Your task to perform on an android device: open app "DuckDuckGo Privacy Browser" (install if not already installed) and enter user name: "cleaving@outlook.com" and password: "freighters" Image 0: 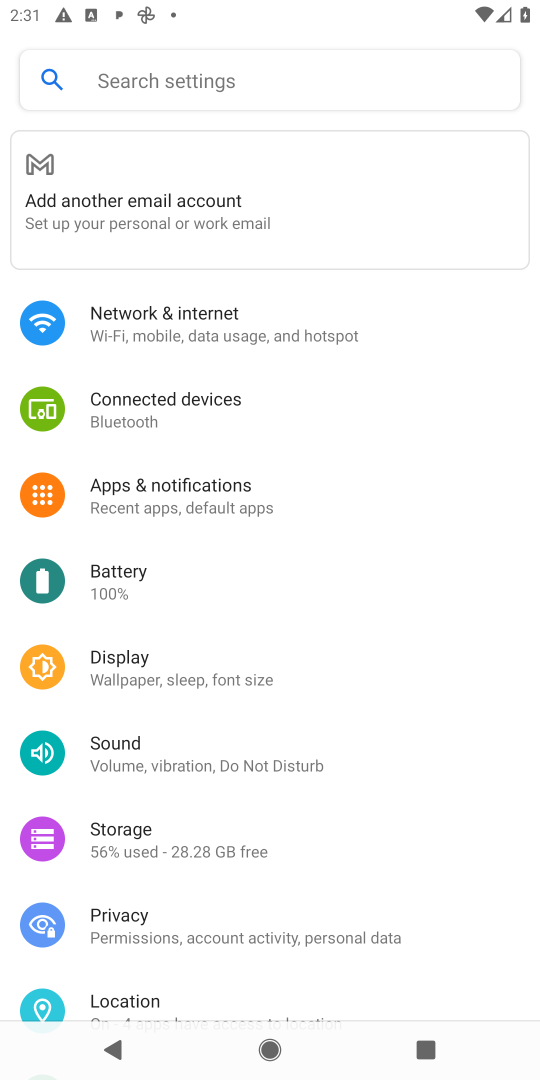
Step 0: press home button
Your task to perform on an android device: open app "DuckDuckGo Privacy Browser" (install if not already installed) and enter user name: "cleaving@outlook.com" and password: "freighters" Image 1: 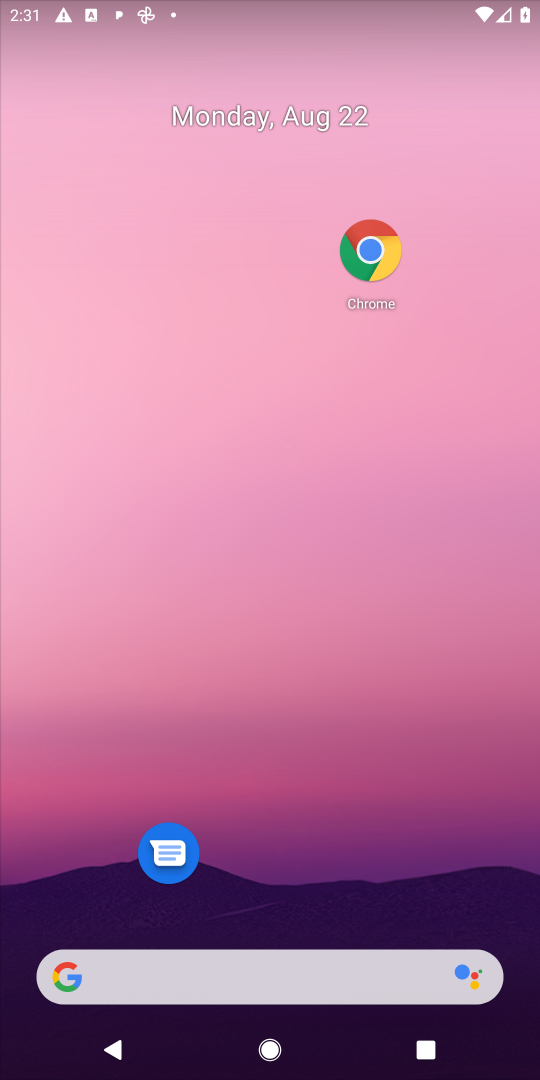
Step 1: drag from (208, 884) to (274, 129)
Your task to perform on an android device: open app "DuckDuckGo Privacy Browser" (install if not already installed) and enter user name: "cleaving@outlook.com" and password: "freighters" Image 2: 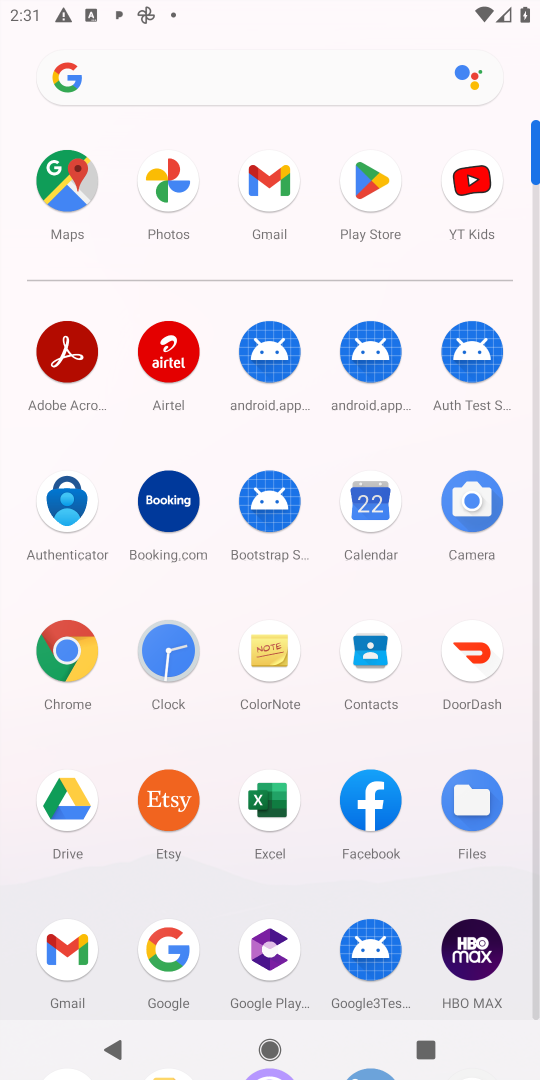
Step 2: click (372, 174)
Your task to perform on an android device: open app "DuckDuckGo Privacy Browser" (install if not already installed) and enter user name: "cleaving@outlook.com" and password: "freighters" Image 3: 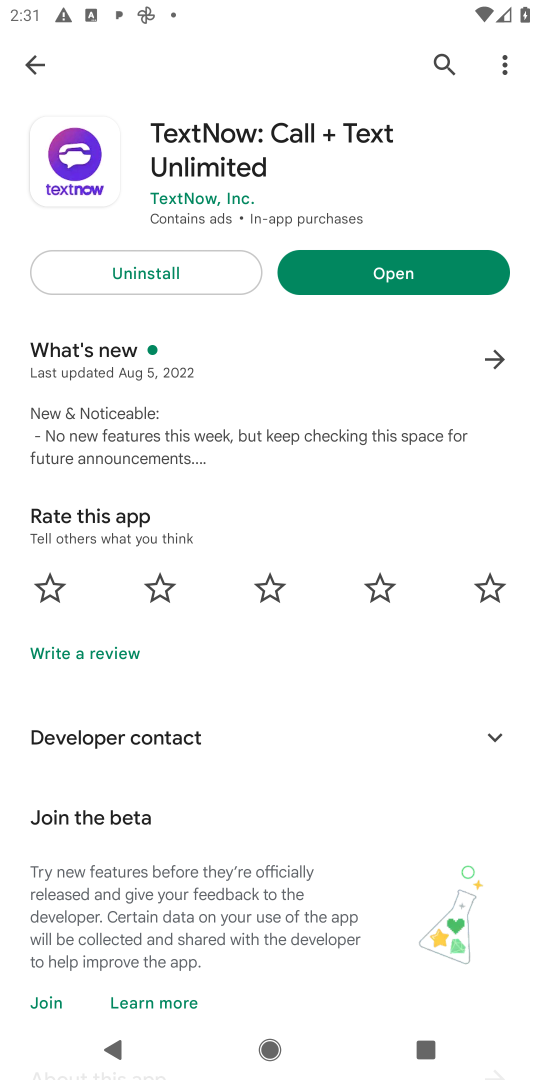
Step 3: click (25, 75)
Your task to perform on an android device: open app "DuckDuckGo Privacy Browser" (install if not already installed) and enter user name: "cleaving@outlook.com" and password: "freighters" Image 4: 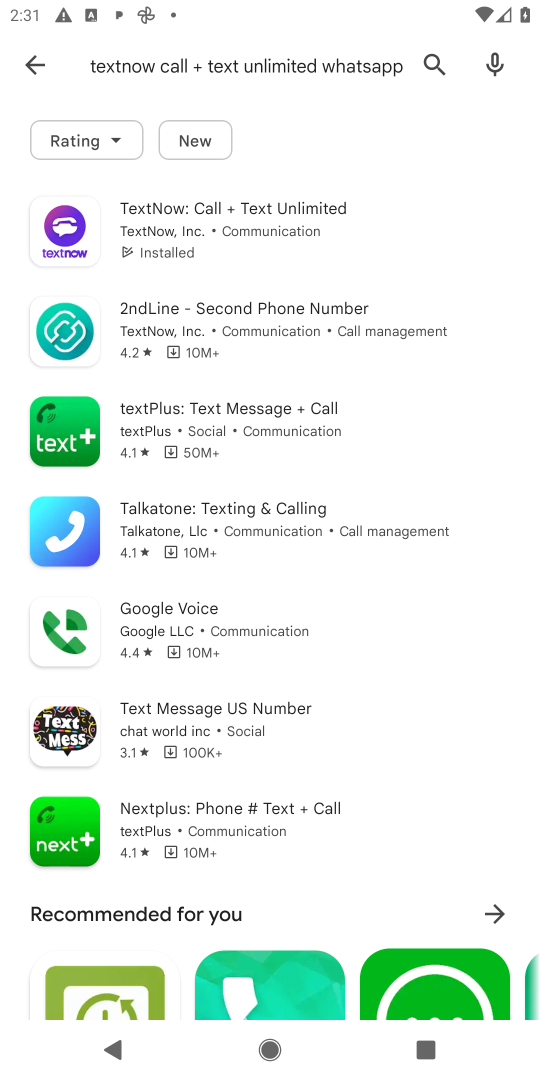
Step 4: click (47, 56)
Your task to perform on an android device: open app "DuckDuckGo Privacy Browser" (install if not already installed) and enter user name: "cleaving@outlook.com" and password: "freighters" Image 5: 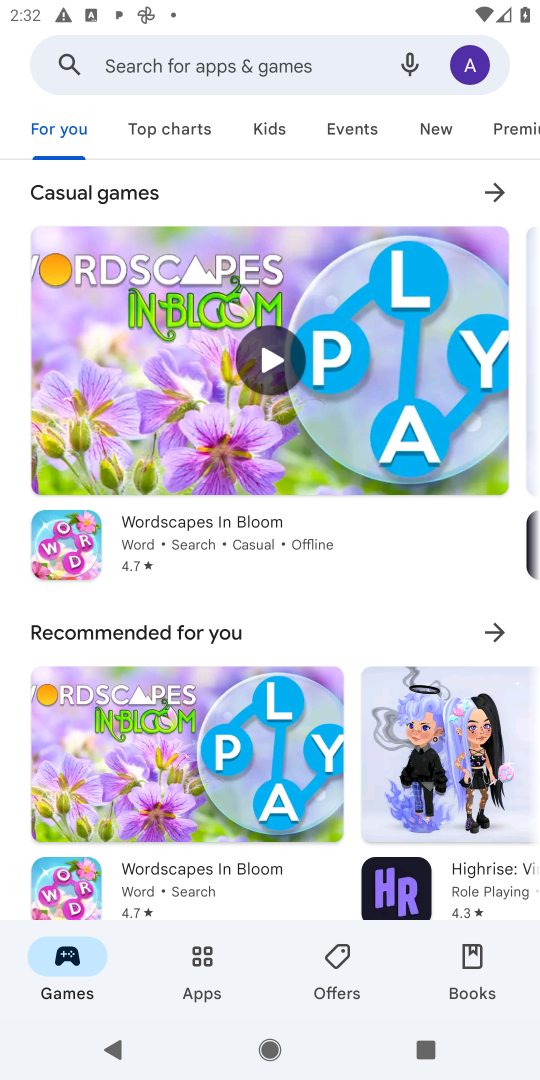
Step 5: click (248, 60)
Your task to perform on an android device: open app "DuckDuckGo Privacy Browser" (install if not already installed) and enter user name: "cleaving@outlook.com" and password: "freighters" Image 6: 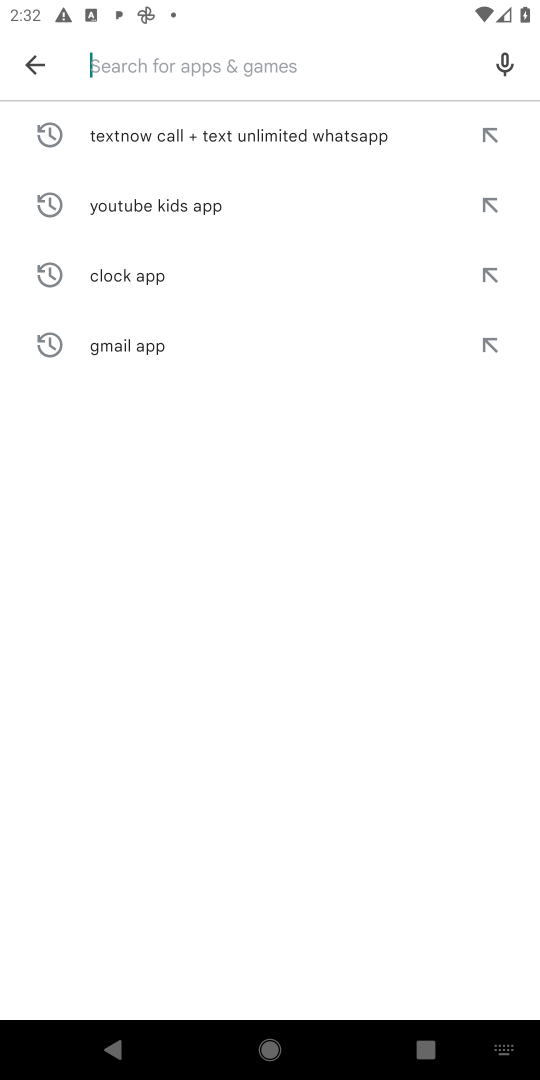
Step 6: type "DuckDuckGo Privacy Browser "
Your task to perform on an android device: open app "DuckDuckGo Privacy Browser" (install if not already installed) and enter user name: "cleaving@outlook.com" and password: "freighters" Image 7: 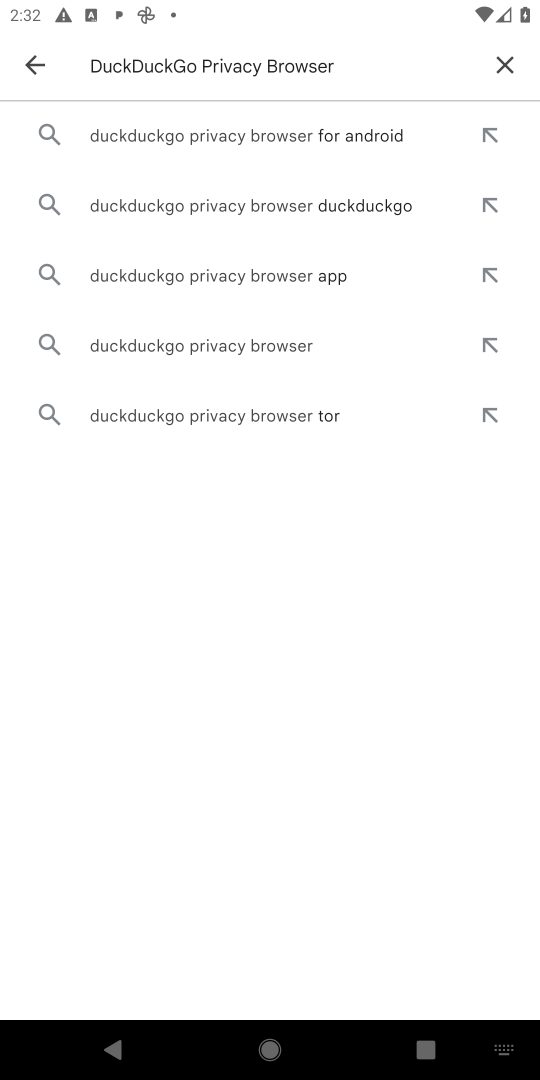
Step 7: click (159, 128)
Your task to perform on an android device: open app "DuckDuckGo Privacy Browser" (install if not already installed) and enter user name: "cleaving@outlook.com" and password: "freighters" Image 8: 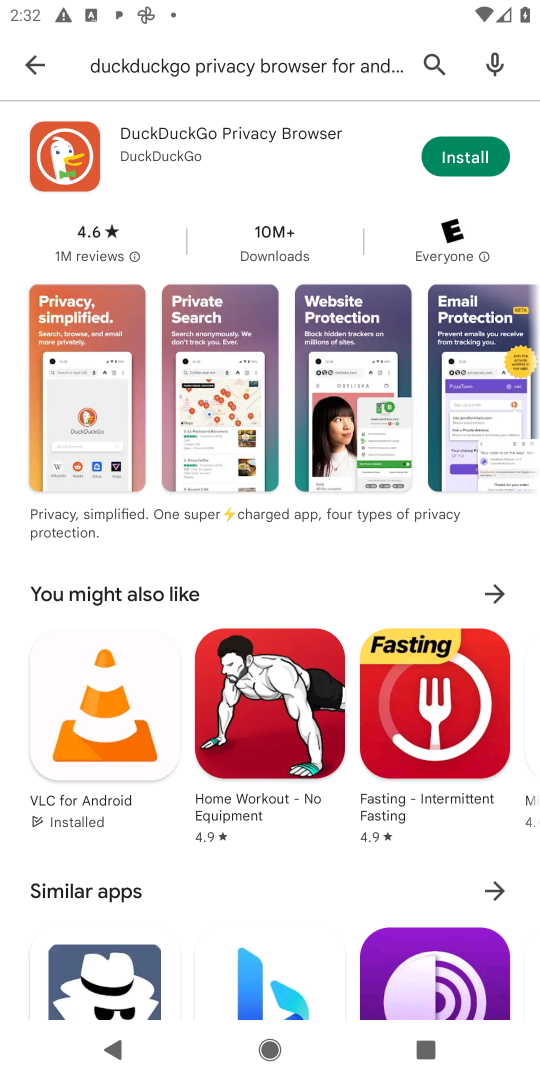
Step 8: click (459, 149)
Your task to perform on an android device: open app "DuckDuckGo Privacy Browser" (install if not already installed) and enter user name: "cleaving@outlook.com" and password: "freighters" Image 9: 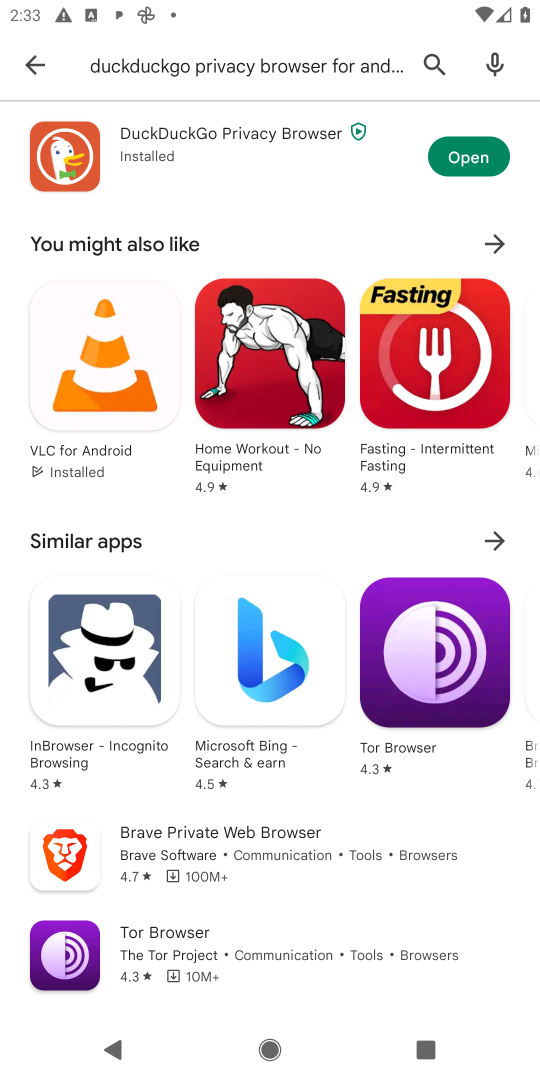
Step 9: click (467, 155)
Your task to perform on an android device: open app "DuckDuckGo Privacy Browser" (install if not already installed) and enter user name: "cleaving@outlook.com" and password: "freighters" Image 10: 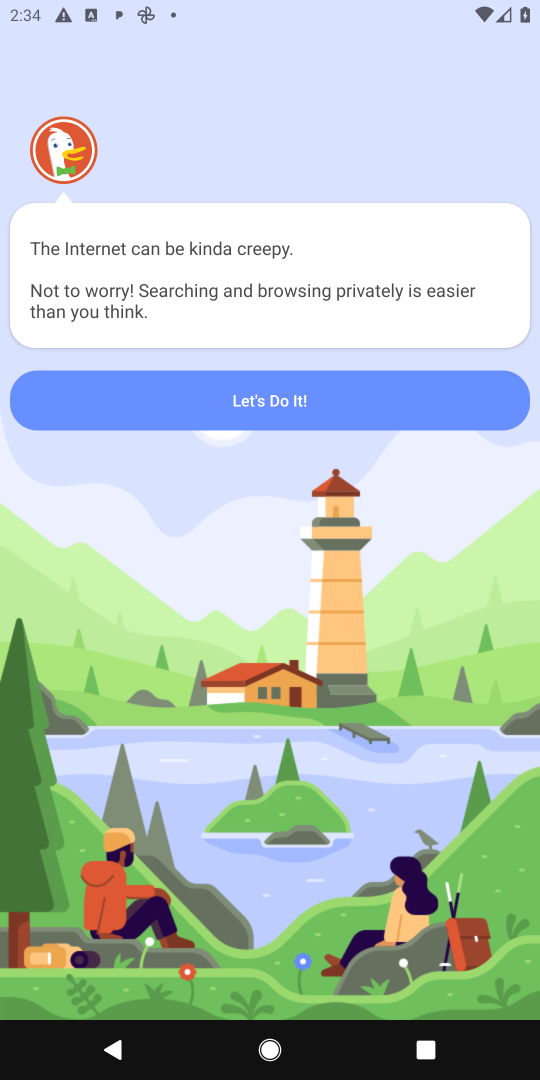
Step 10: task complete